Your task to perform on an android device: turn on wifi Image 0: 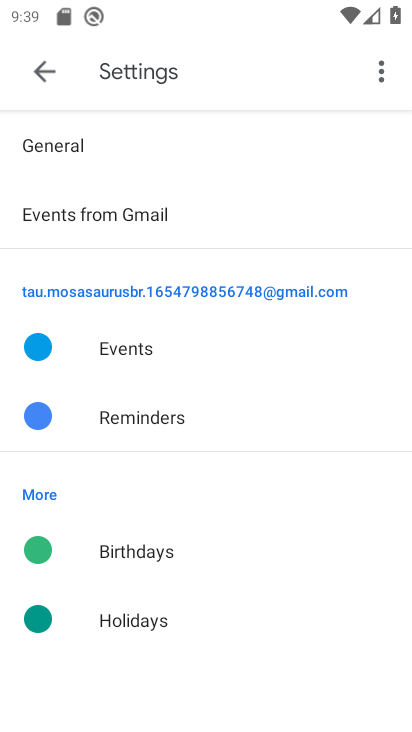
Step 0: press home button
Your task to perform on an android device: turn on wifi Image 1: 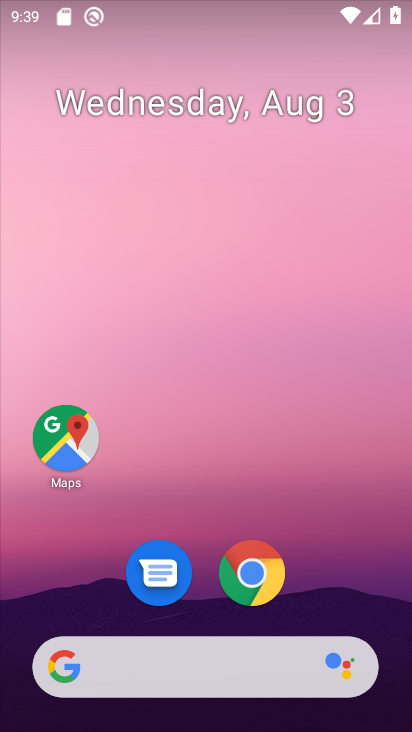
Step 1: drag from (222, 654) to (236, 128)
Your task to perform on an android device: turn on wifi Image 2: 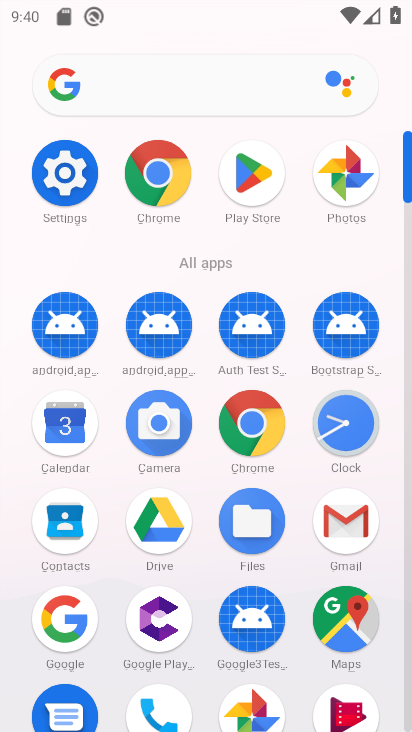
Step 2: click (68, 169)
Your task to perform on an android device: turn on wifi Image 3: 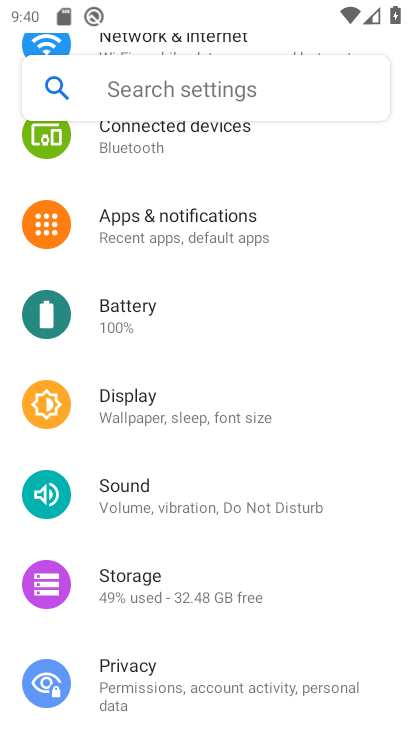
Step 3: drag from (228, 182) to (207, 588)
Your task to perform on an android device: turn on wifi Image 4: 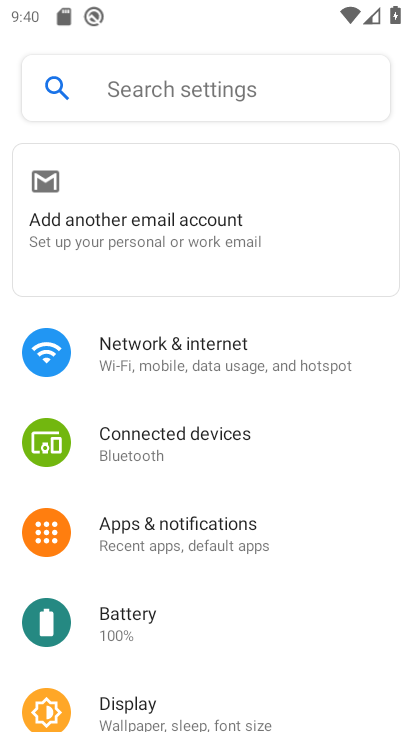
Step 4: click (200, 377)
Your task to perform on an android device: turn on wifi Image 5: 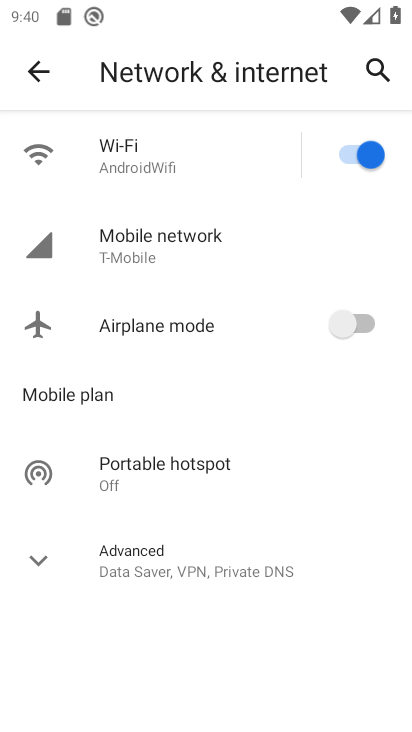
Step 5: task complete